Your task to perform on an android device: Search for seafood restaurants on Google Maps Image 0: 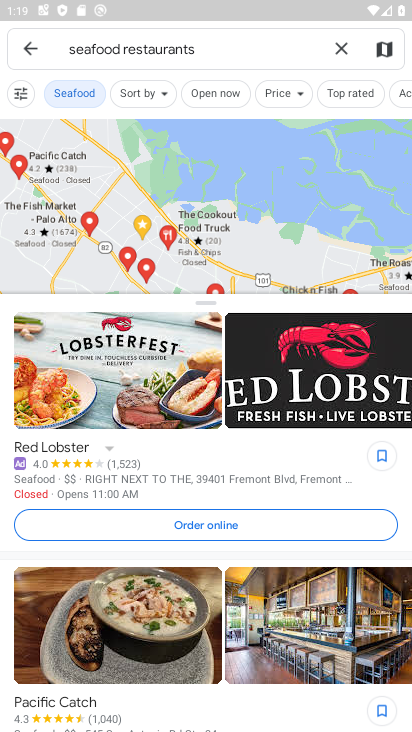
Step 0: press home button
Your task to perform on an android device: Search for seafood restaurants on Google Maps Image 1: 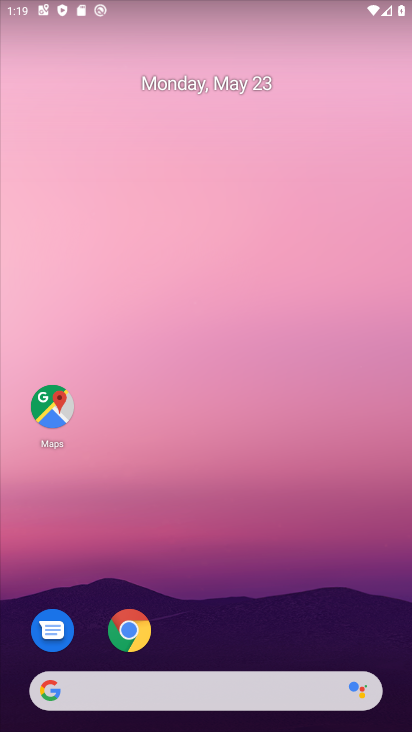
Step 1: drag from (348, 443) to (349, 186)
Your task to perform on an android device: Search for seafood restaurants on Google Maps Image 2: 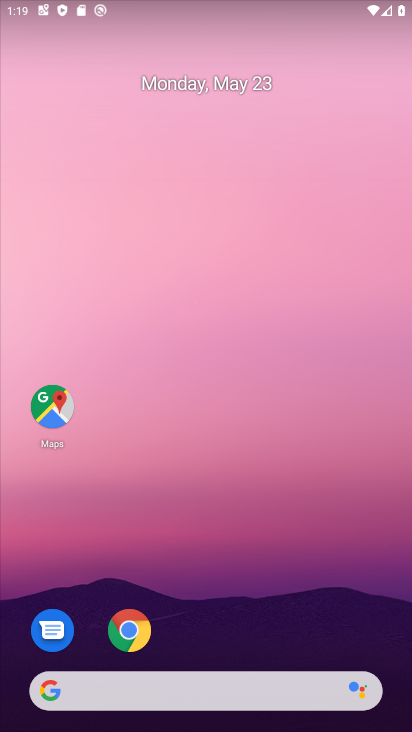
Step 2: drag from (327, 558) to (346, 182)
Your task to perform on an android device: Search for seafood restaurants on Google Maps Image 3: 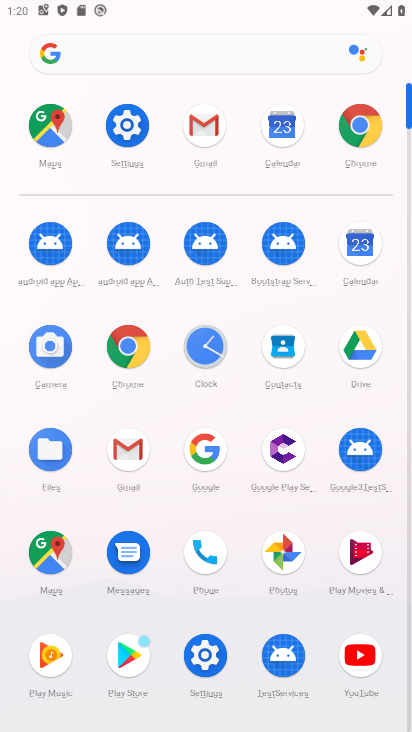
Step 3: click (42, 560)
Your task to perform on an android device: Search for seafood restaurants on Google Maps Image 4: 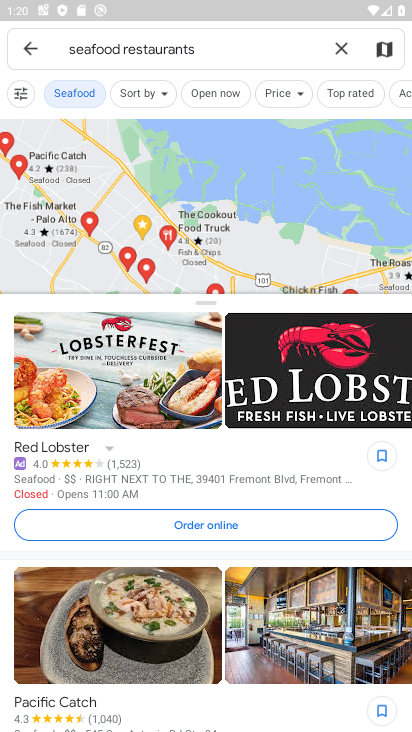
Step 4: task complete